Your task to perform on an android device: Play the last video I watched on Youtube Image 0: 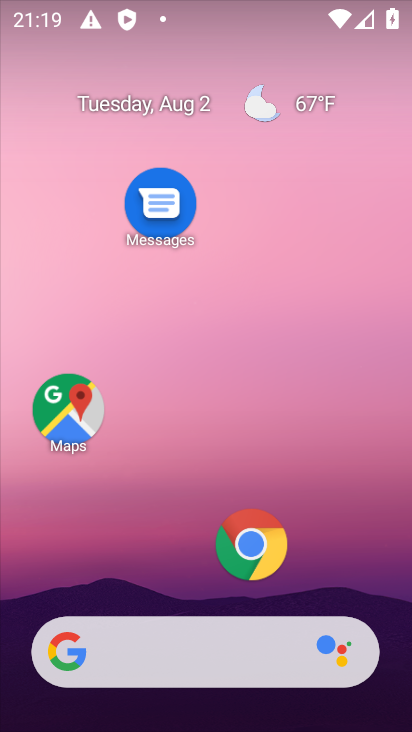
Step 0: drag from (177, 579) to (216, 149)
Your task to perform on an android device: Play the last video I watched on Youtube Image 1: 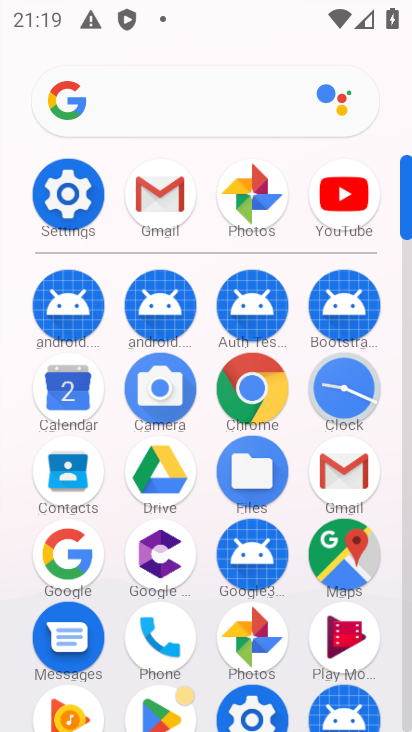
Step 1: click (339, 189)
Your task to perform on an android device: Play the last video I watched on Youtube Image 2: 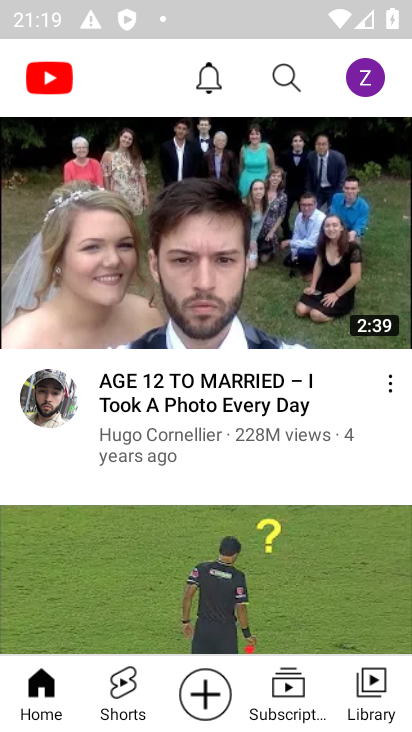
Step 2: click (377, 706)
Your task to perform on an android device: Play the last video I watched on Youtube Image 3: 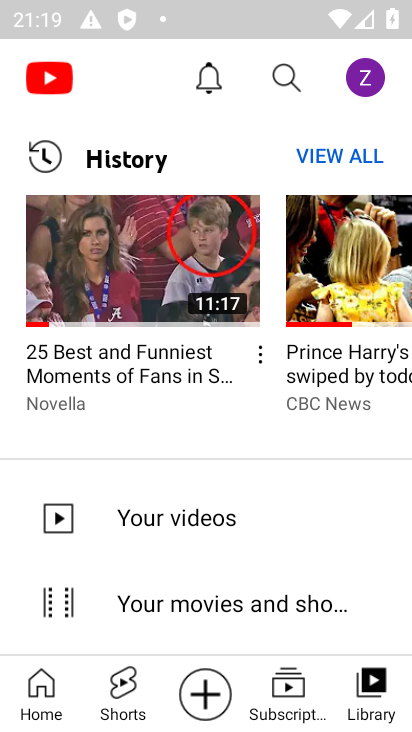
Step 3: click (137, 277)
Your task to perform on an android device: Play the last video I watched on Youtube Image 4: 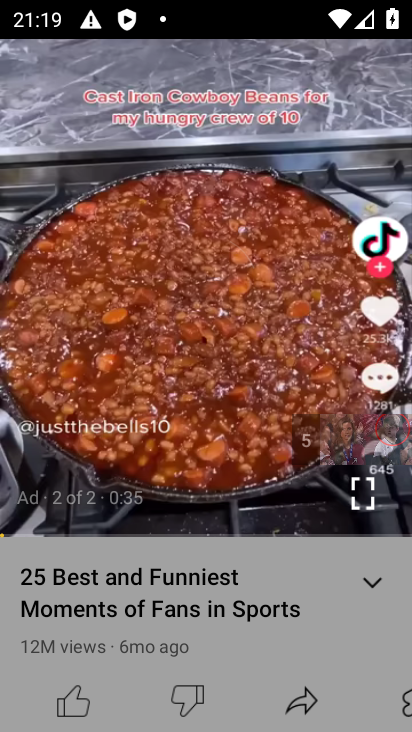
Step 4: task complete